Your task to perform on an android device: Open Maps and search for coffee Image 0: 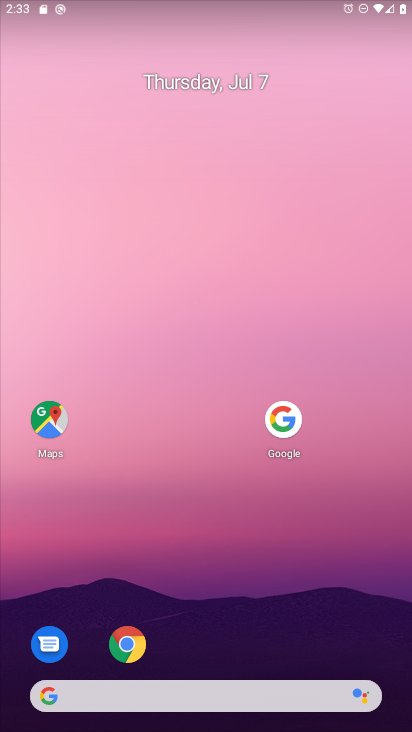
Step 0: click (50, 415)
Your task to perform on an android device: Open Maps and search for coffee Image 1: 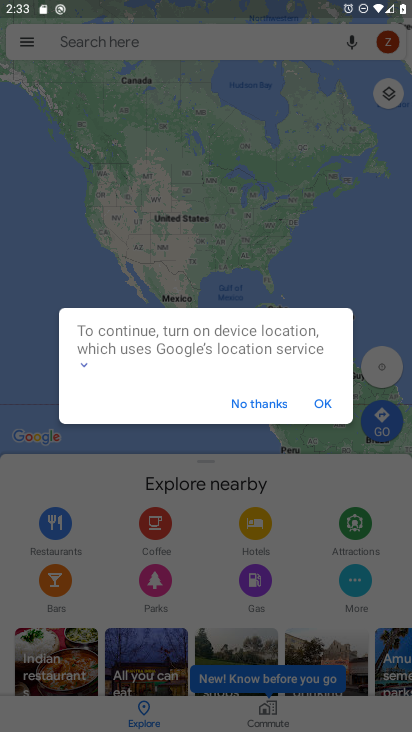
Step 1: click (327, 406)
Your task to perform on an android device: Open Maps and search for coffee Image 2: 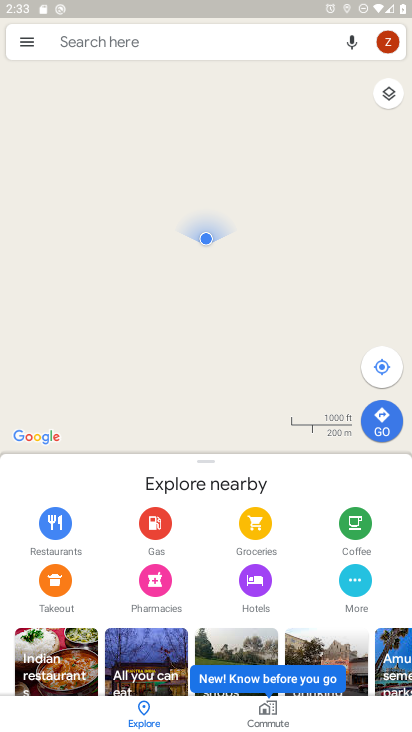
Step 2: click (184, 47)
Your task to perform on an android device: Open Maps and search for coffee Image 3: 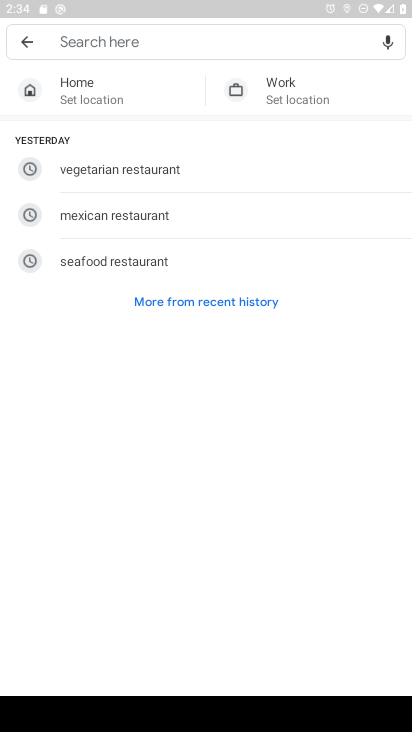
Step 3: type " coffee"
Your task to perform on an android device: Open Maps and search for coffee Image 4: 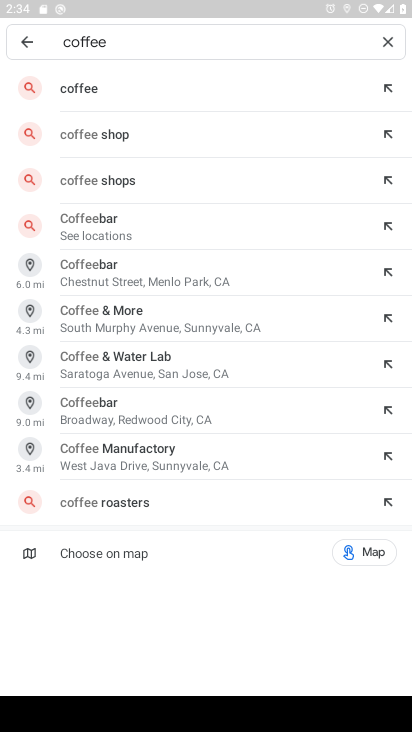
Step 4: click (70, 87)
Your task to perform on an android device: Open Maps and search for coffee Image 5: 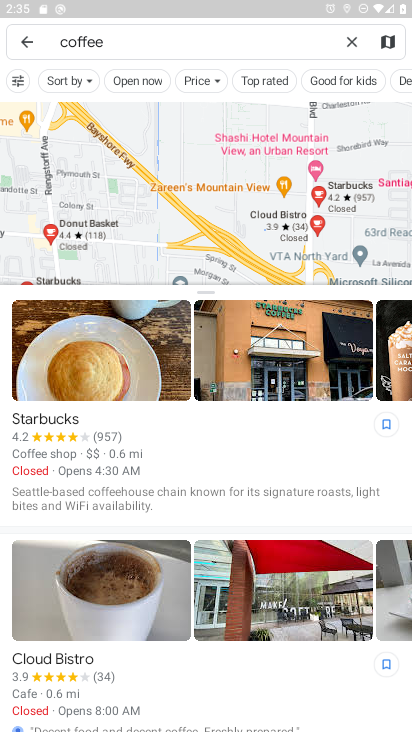
Step 5: task complete